Your task to perform on an android device: Find coffee shops on Maps Image 0: 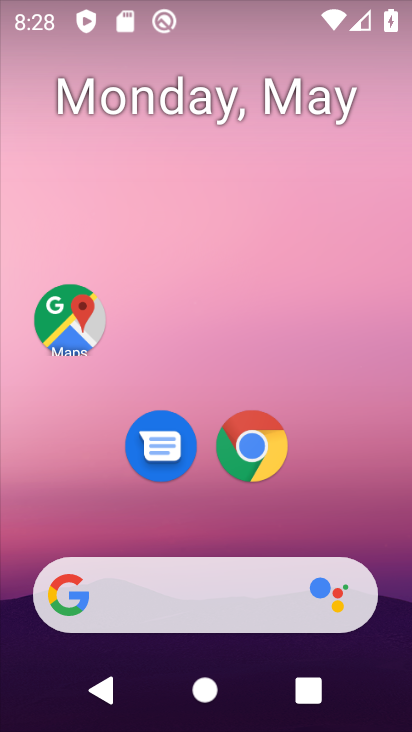
Step 0: drag from (210, 519) to (192, 6)
Your task to perform on an android device: Find coffee shops on Maps Image 1: 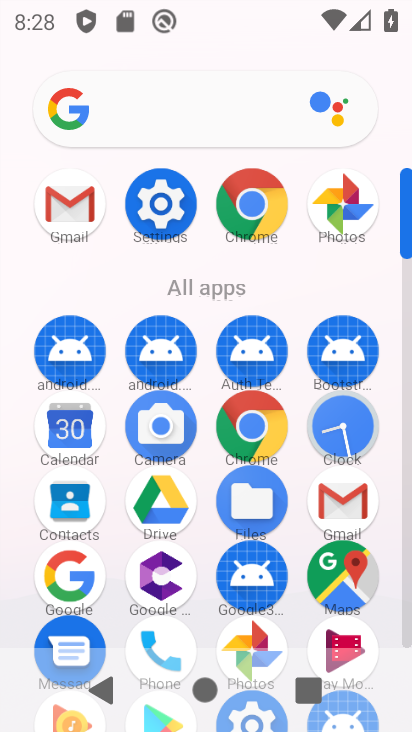
Step 1: click (345, 569)
Your task to perform on an android device: Find coffee shops on Maps Image 2: 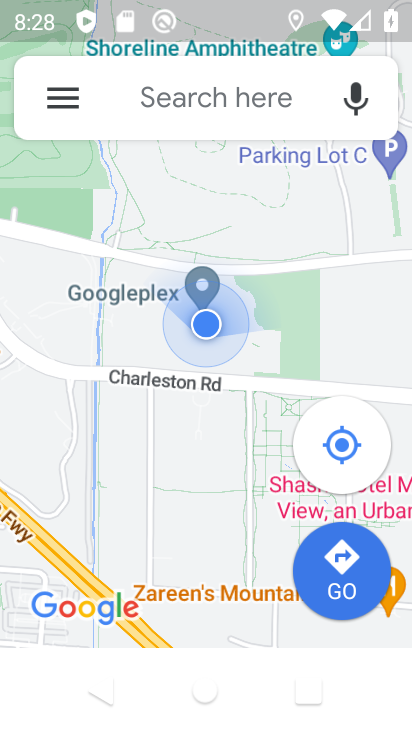
Step 2: click (168, 93)
Your task to perform on an android device: Find coffee shops on Maps Image 3: 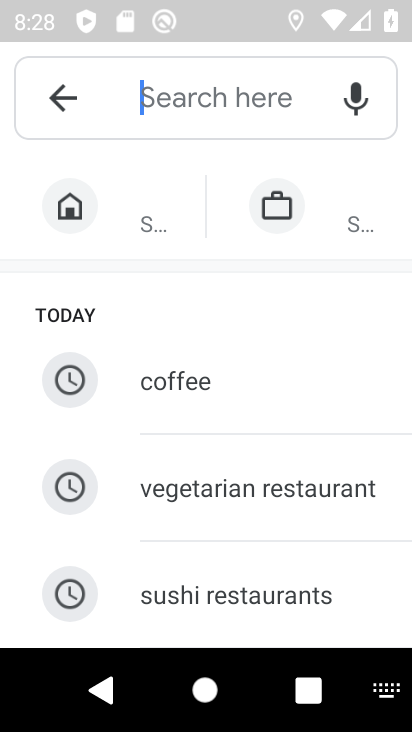
Step 3: click (225, 382)
Your task to perform on an android device: Find coffee shops on Maps Image 4: 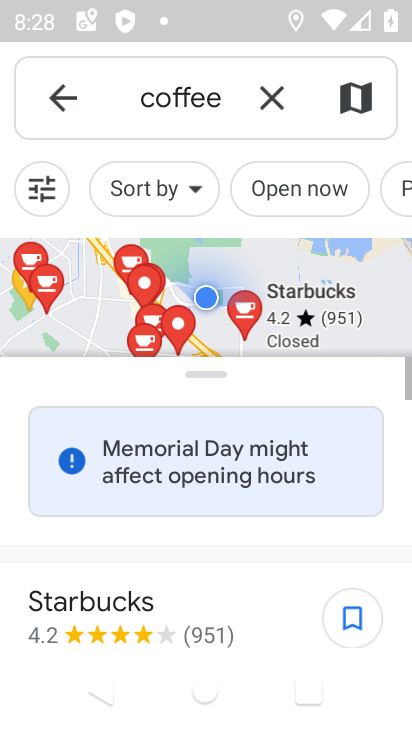
Step 4: task complete